Your task to perform on an android device: Go to notification settings Image 0: 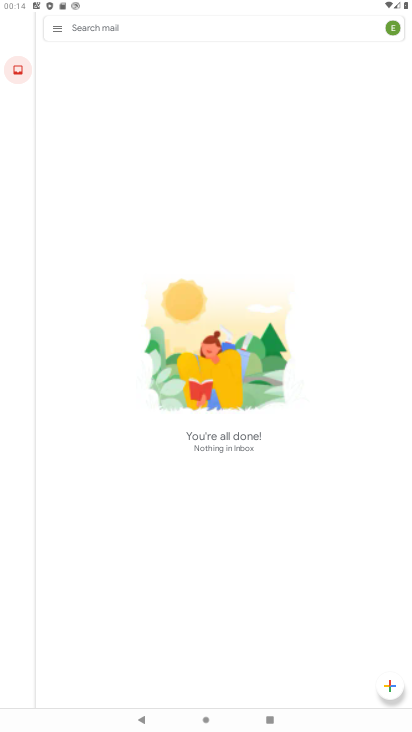
Step 0: press home button
Your task to perform on an android device: Go to notification settings Image 1: 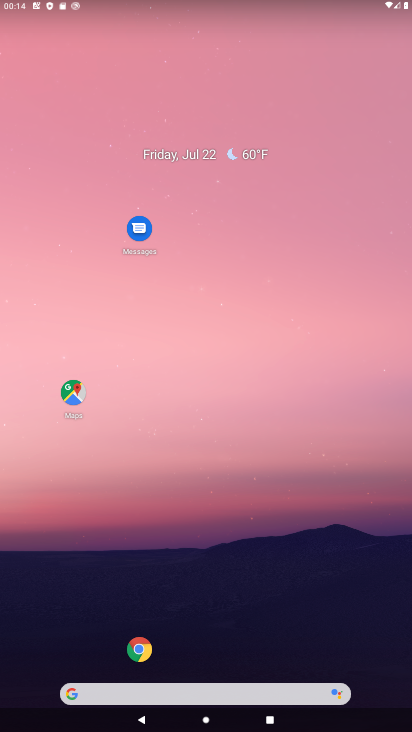
Step 1: drag from (42, 664) to (197, 239)
Your task to perform on an android device: Go to notification settings Image 2: 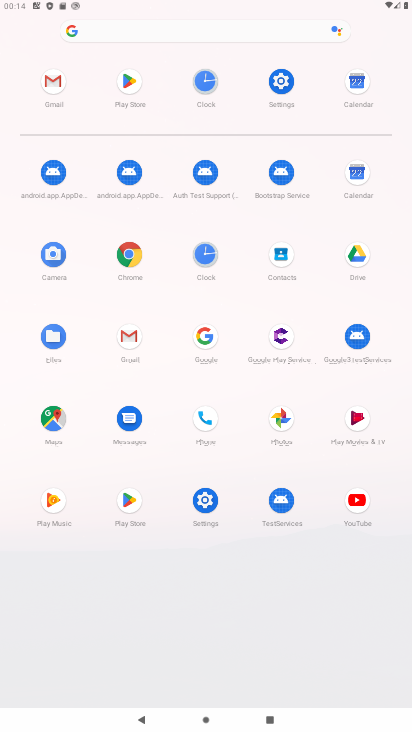
Step 2: click (206, 492)
Your task to perform on an android device: Go to notification settings Image 3: 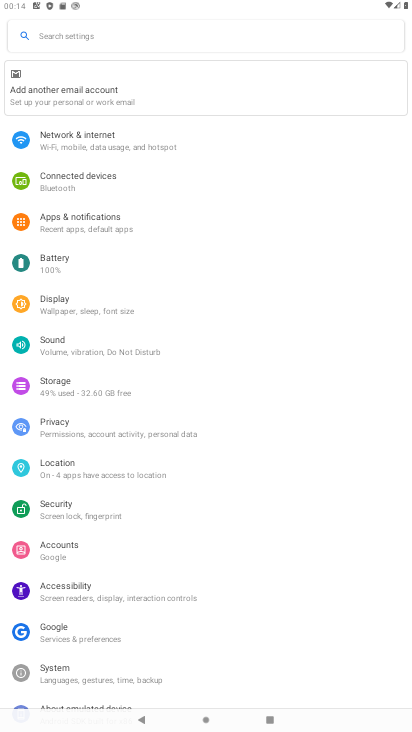
Step 3: click (64, 219)
Your task to perform on an android device: Go to notification settings Image 4: 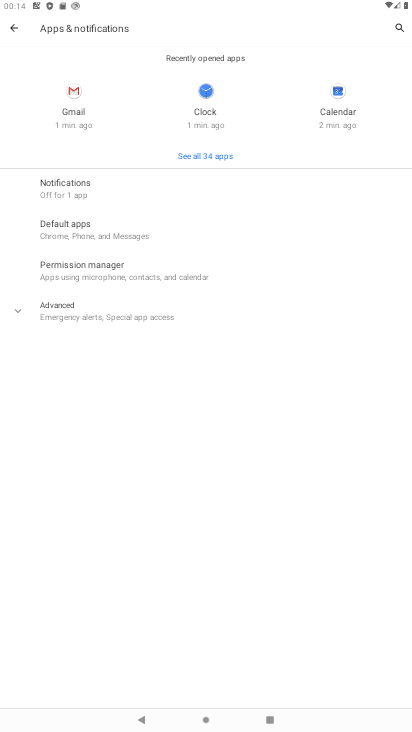
Step 4: click (72, 183)
Your task to perform on an android device: Go to notification settings Image 5: 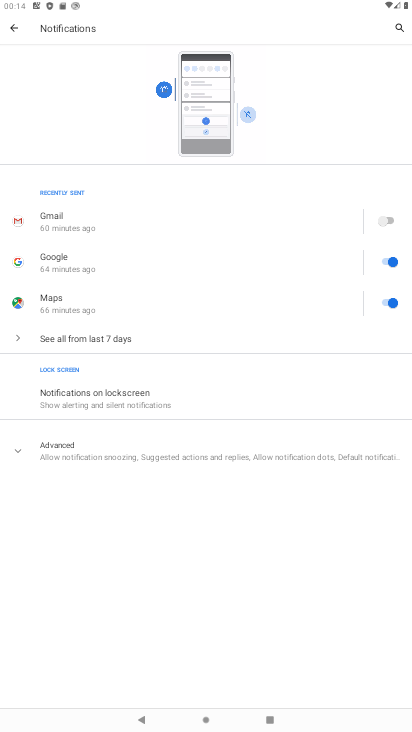
Step 5: task complete